Your task to perform on an android device: Open Google Maps Image 0: 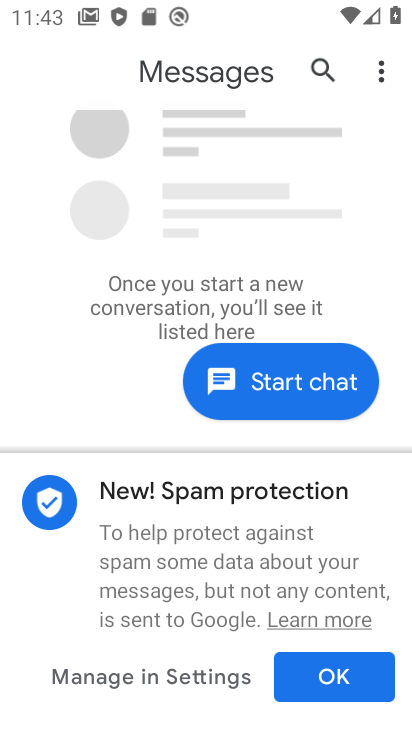
Step 0: drag from (152, 426) to (194, 215)
Your task to perform on an android device: Open Google Maps Image 1: 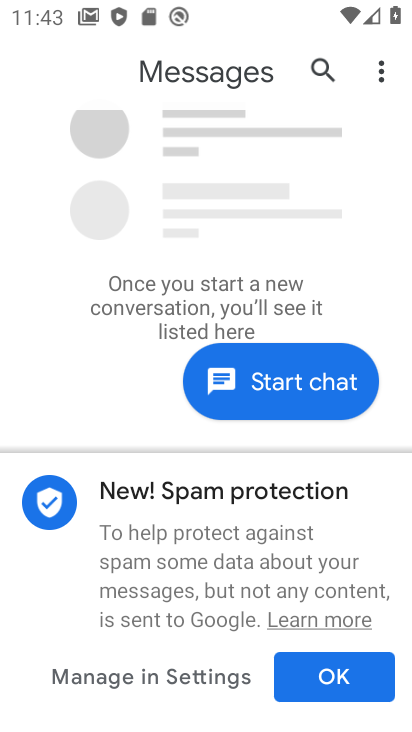
Step 1: drag from (235, 555) to (279, 305)
Your task to perform on an android device: Open Google Maps Image 2: 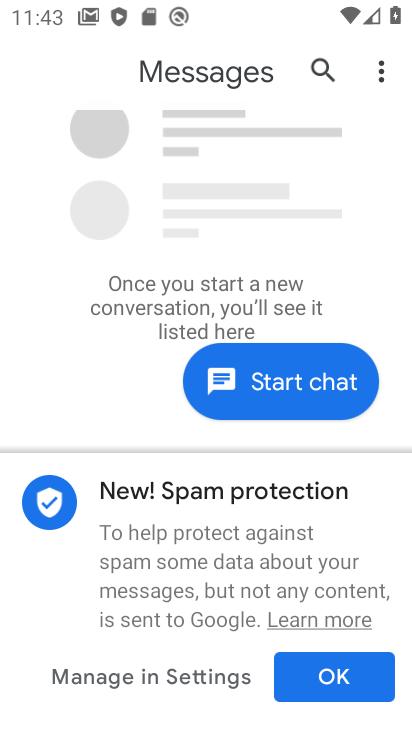
Step 2: drag from (204, 469) to (260, 247)
Your task to perform on an android device: Open Google Maps Image 3: 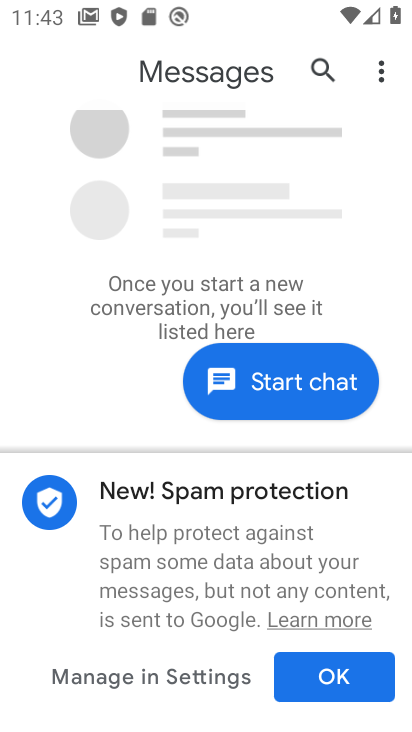
Step 3: press home button
Your task to perform on an android device: Open Google Maps Image 4: 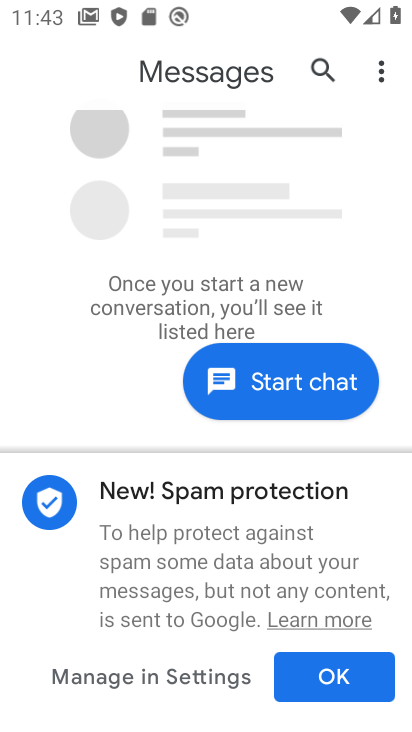
Step 4: press home button
Your task to perform on an android device: Open Google Maps Image 5: 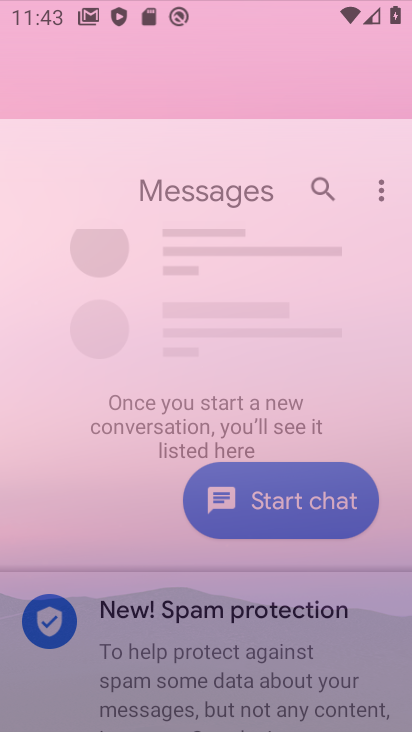
Step 5: drag from (248, 410) to (283, 273)
Your task to perform on an android device: Open Google Maps Image 6: 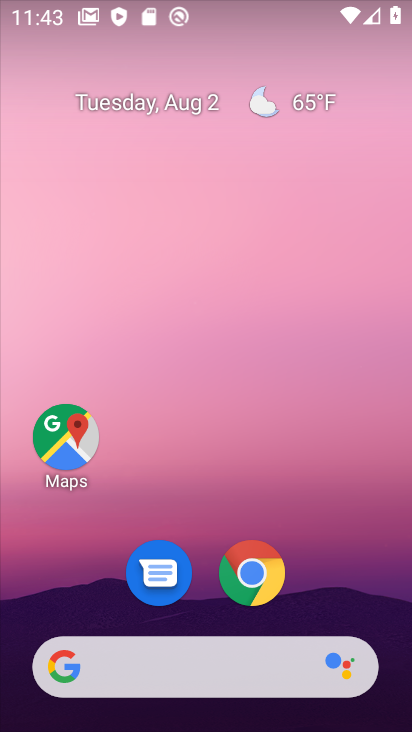
Step 6: click (67, 432)
Your task to perform on an android device: Open Google Maps Image 7: 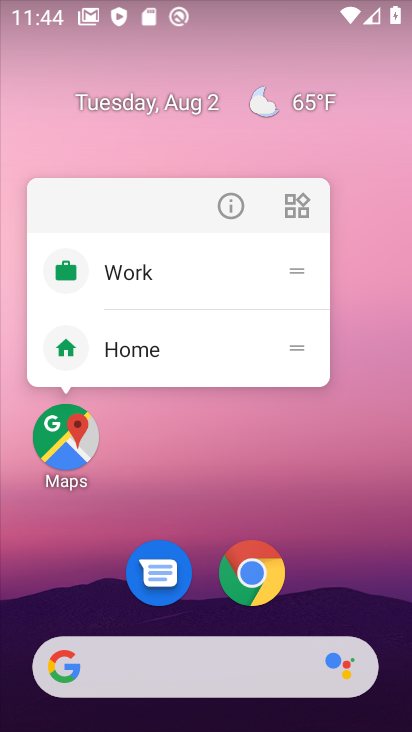
Step 7: click (232, 215)
Your task to perform on an android device: Open Google Maps Image 8: 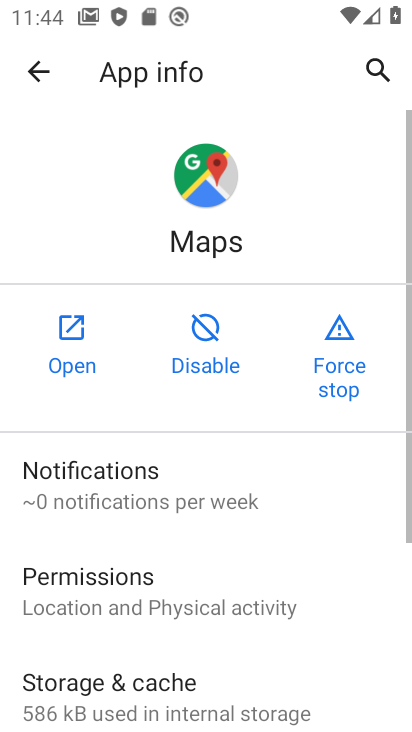
Step 8: click (59, 343)
Your task to perform on an android device: Open Google Maps Image 9: 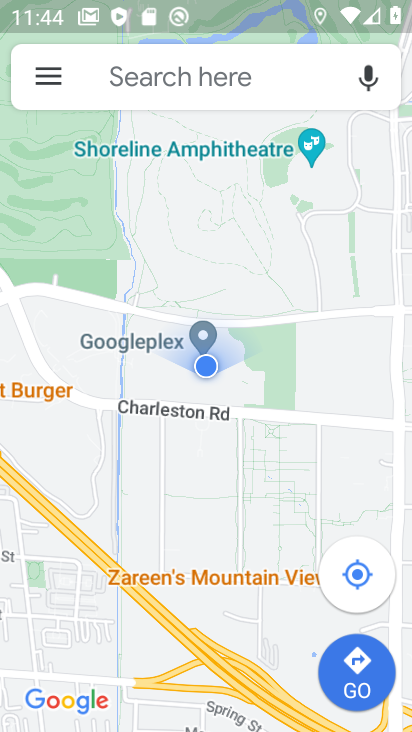
Step 9: task complete